Your task to perform on an android device: toggle improve location accuracy Image 0: 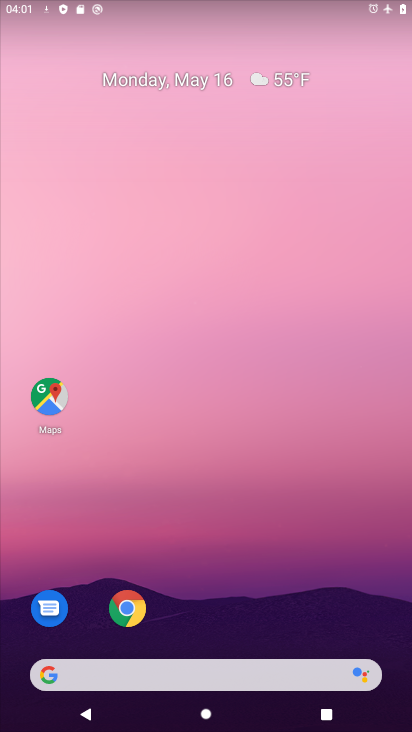
Step 0: drag from (232, 590) to (233, 177)
Your task to perform on an android device: toggle improve location accuracy Image 1: 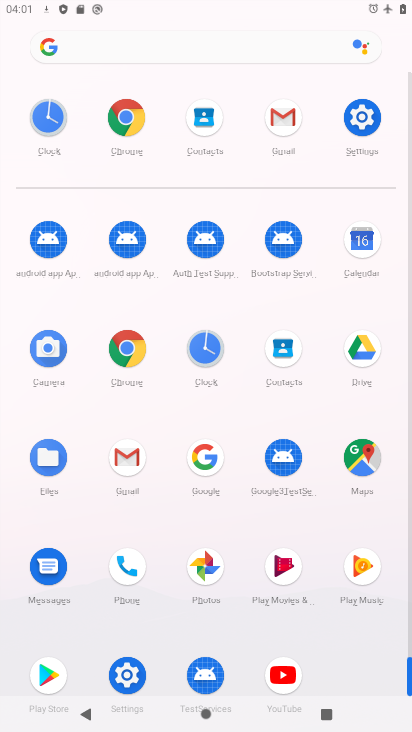
Step 1: click (359, 106)
Your task to perform on an android device: toggle improve location accuracy Image 2: 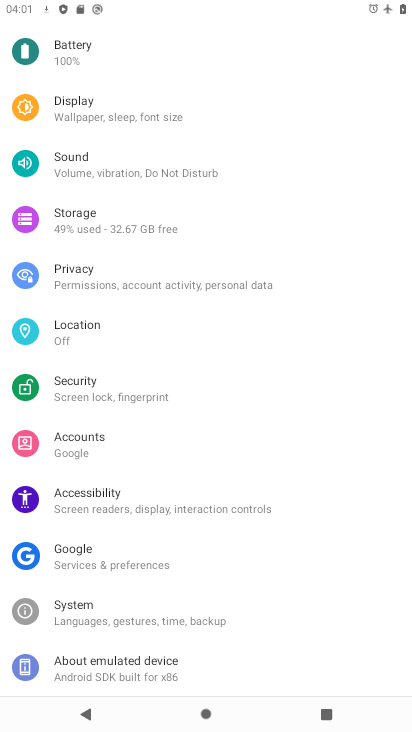
Step 2: click (118, 340)
Your task to perform on an android device: toggle improve location accuracy Image 3: 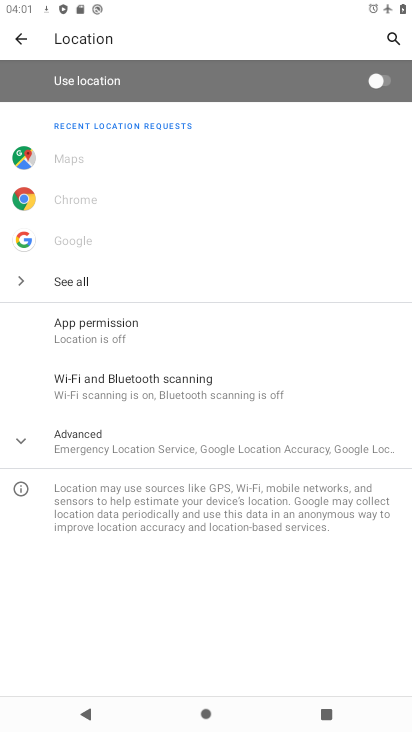
Step 3: click (134, 442)
Your task to perform on an android device: toggle improve location accuracy Image 4: 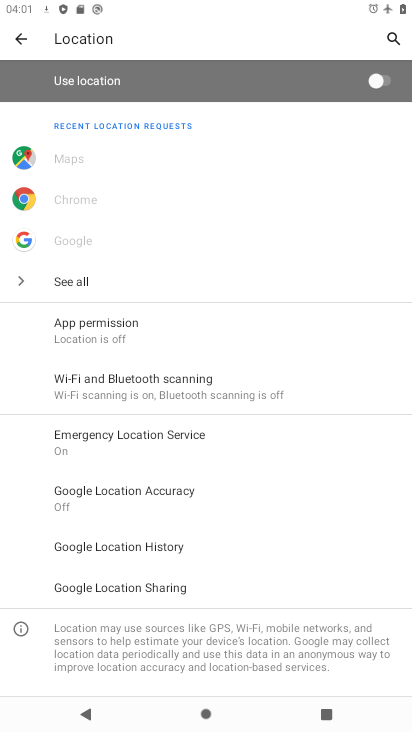
Step 4: click (184, 492)
Your task to perform on an android device: toggle improve location accuracy Image 5: 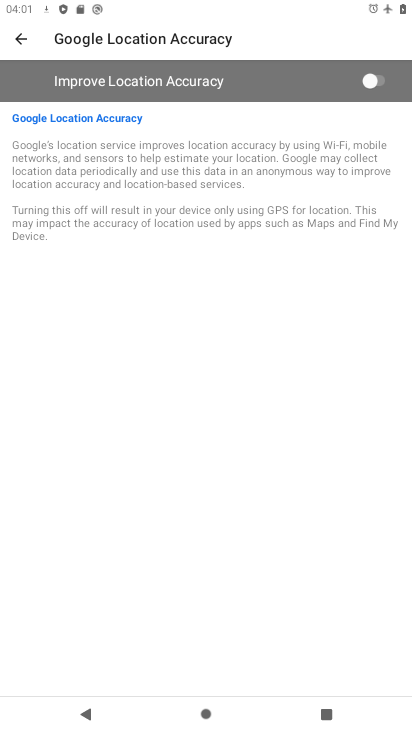
Step 5: click (374, 79)
Your task to perform on an android device: toggle improve location accuracy Image 6: 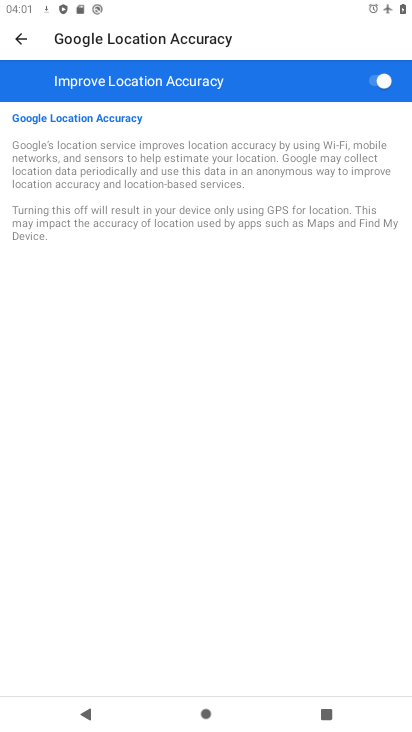
Step 6: task complete